Your task to perform on an android device: Open sound settings Image 0: 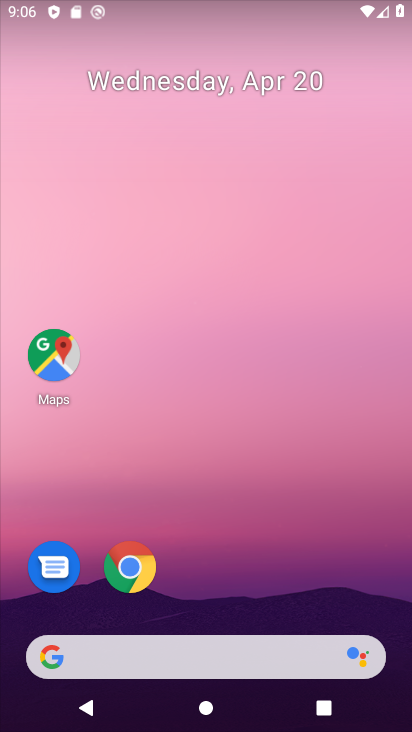
Step 0: press home button
Your task to perform on an android device: Open sound settings Image 1: 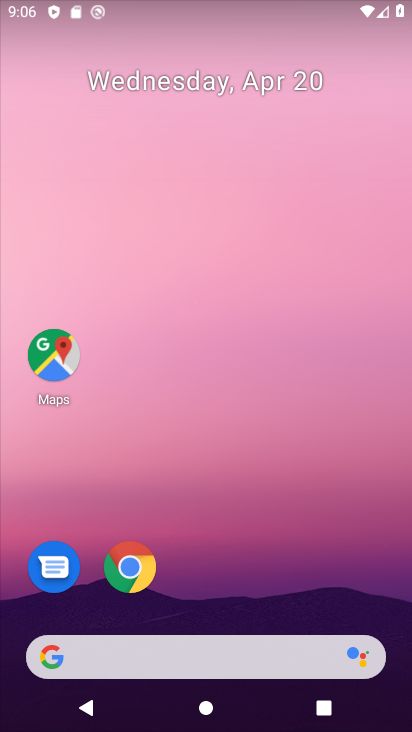
Step 1: drag from (368, 583) to (377, 225)
Your task to perform on an android device: Open sound settings Image 2: 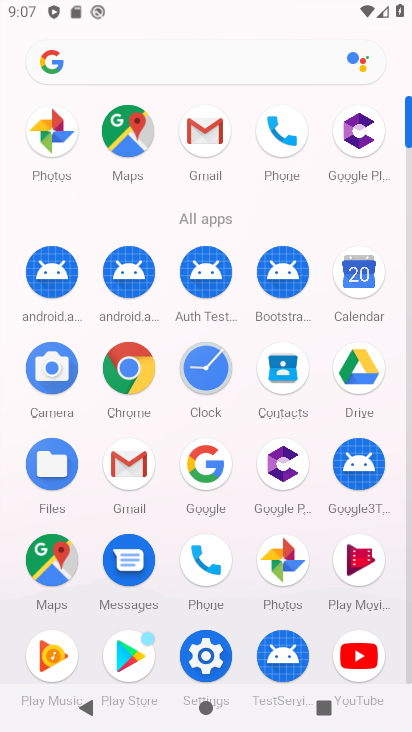
Step 2: drag from (395, 529) to (392, 484)
Your task to perform on an android device: Open sound settings Image 3: 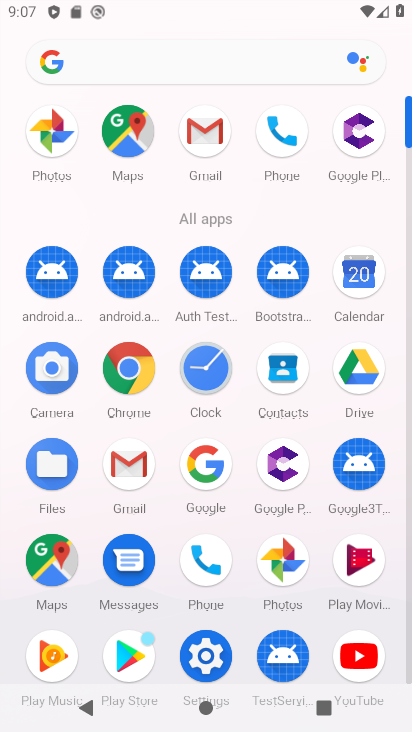
Step 3: click (206, 658)
Your task to perform on an android device: Open sound settings Image 4: 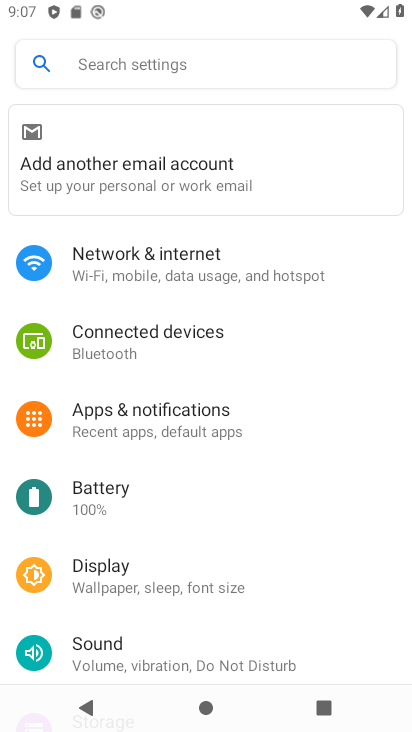
Step 4: drag from (292, 582) to (298, 448)
Your task to perform on an android device: Open sound settings Image 5: 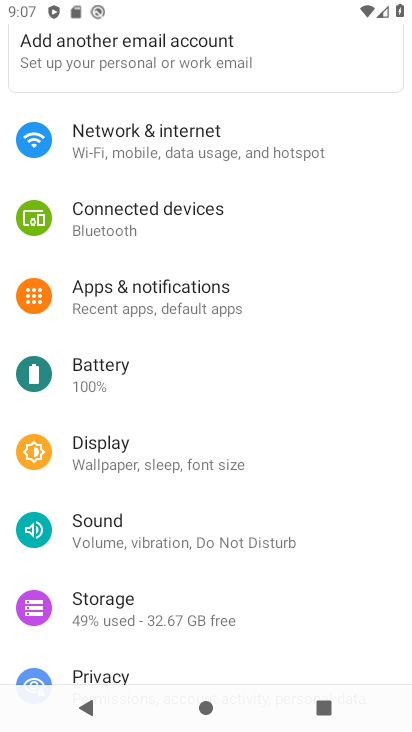
Step 5: drag from (343, 591) to (321, 402)
Your task to perform on an android device: Open sound settings Image 6: 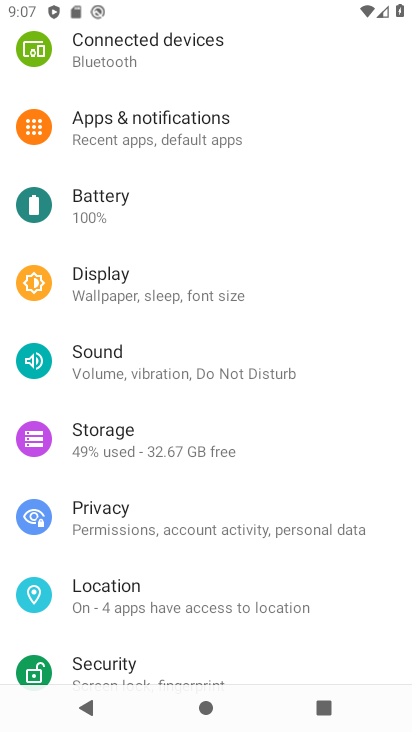
Step 6: drag from (349, 602) to (349, 419)
Your task to perform on an android device: Open sound settings Image 7: 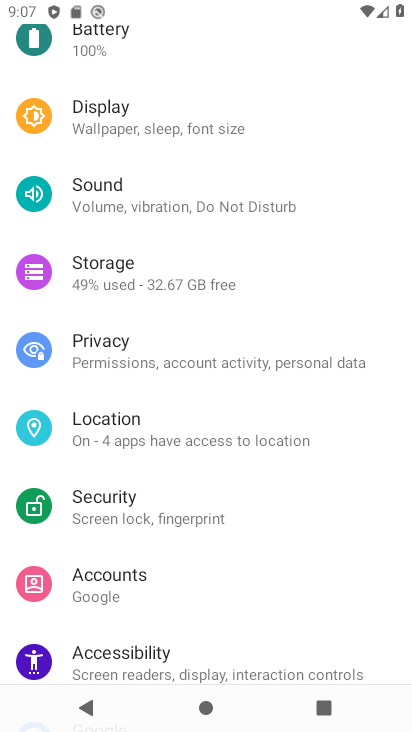
Step 7: drag from (345, 579) to (346, 469)
Your task to perform on an android device: Open sound settings Image 8: 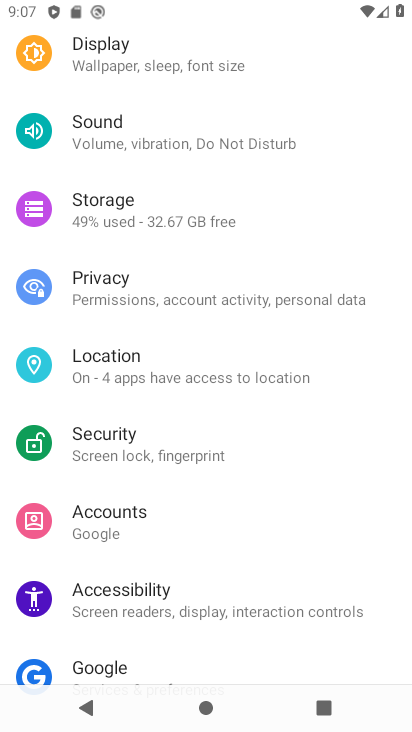
Step 8: drag from (359, 528) to (357, 403)
Your task to perform on an android device: Open sound settings Image 9: 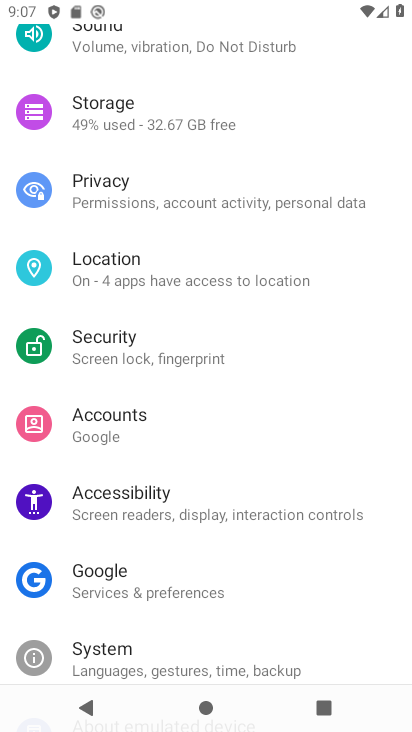
Step 9: drag from (351, 566) to (356, 416)
Your task to perform on an android device: Open sound settings Image 10: 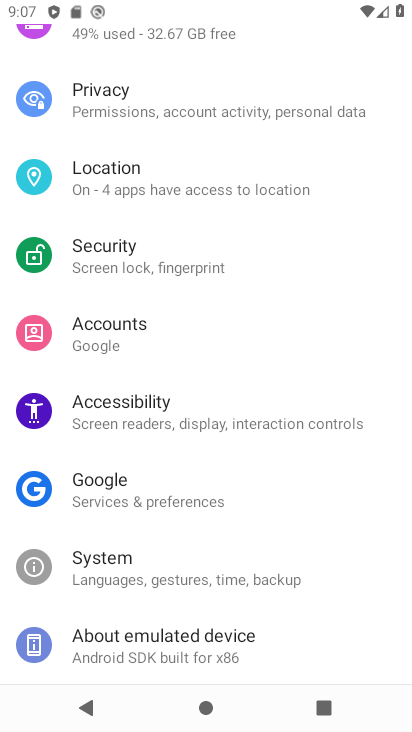
Step 10: drag from (352, 363) to (327, 549)
Your task to perform on an android device: Open sound settings Image 11: 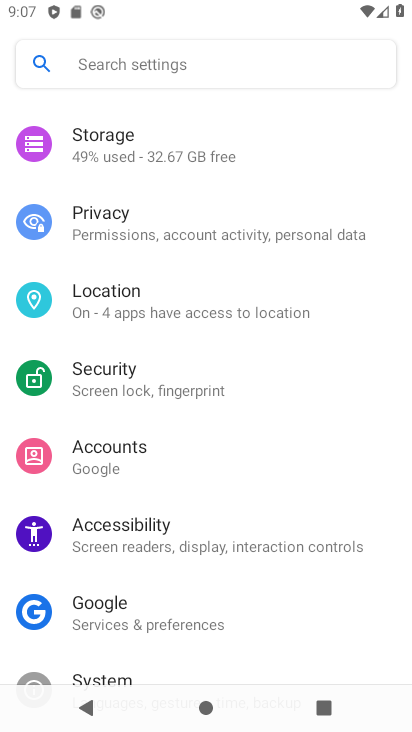
Step 11: drag from (371, 313) to (357, 493)
Your task to perform on an android device: Open sound settings Image 12: 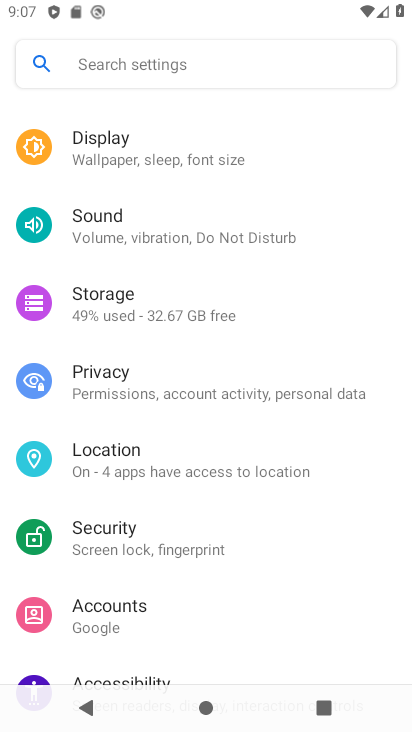
Step 12: drag from (362, 263) to (372, 512)
Your task to perform on an android device: Open sound settings Image 13: 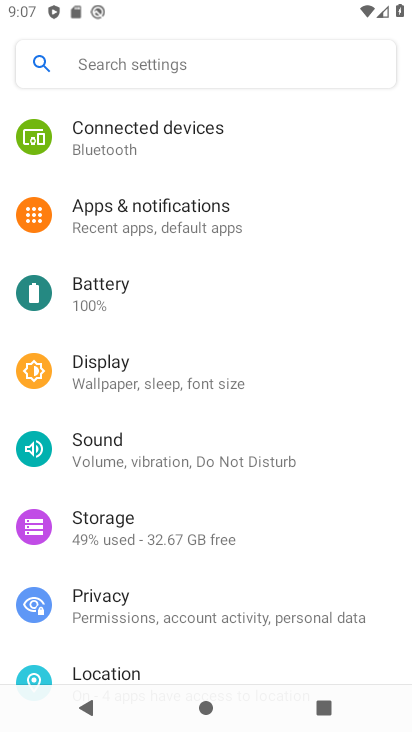
Step 13: click (242, 453)
Your task to perform on an android device: Open sound settings Image 14: 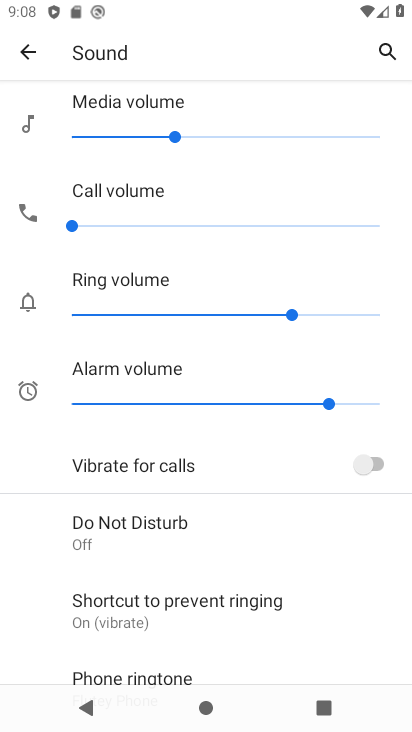
Step 14: task complete